Your task to perform on an android device: Open the Play Movies app and select the watchlist tab. Image 0: 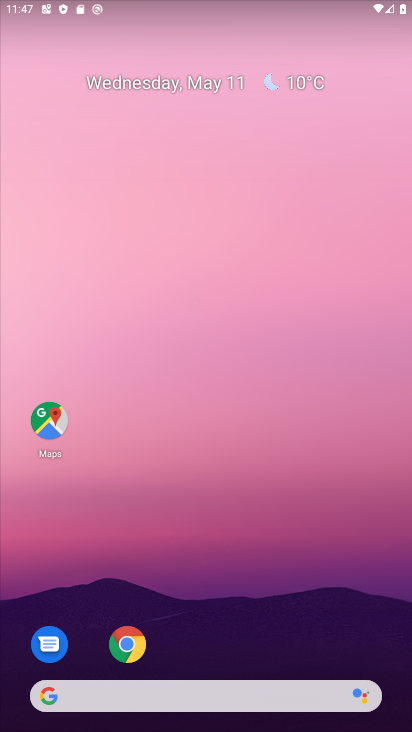
Step 0: drag from (264, 557) to (405, 663)
Your task to perform on an android device: Open the Play Movies app and select the watchlist tab. Image 1: 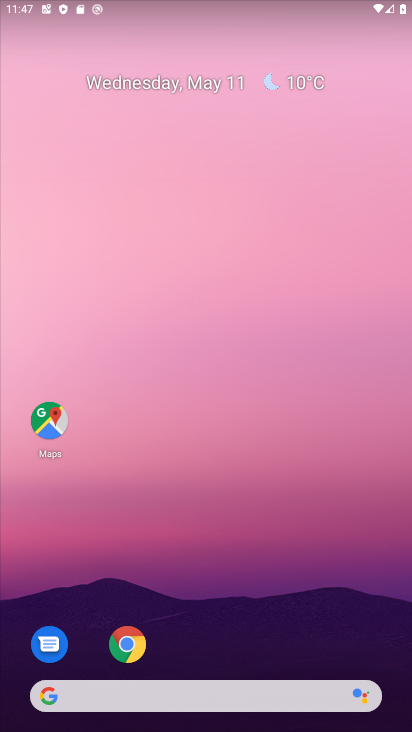
Step 1: drag from (326, 618) to (233, 26)
Your task to perform on an android device: Open the Play Movies app and select the watchlist tab. Image 2: 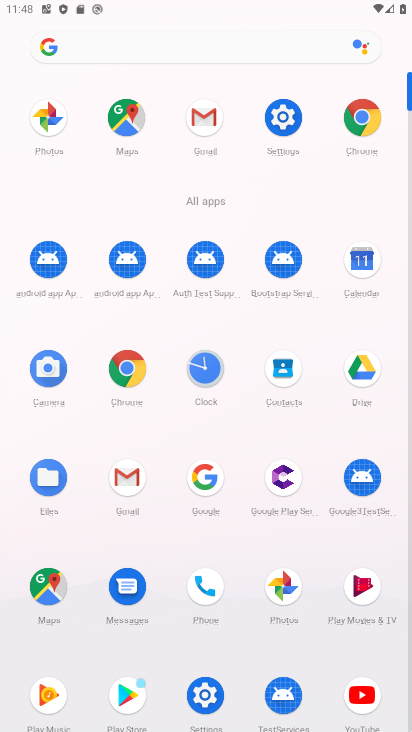
Step 2: click (376, 590)
Your task to perform on an android device: Open the Play Movies app and select the watchlist tab. Image 3: 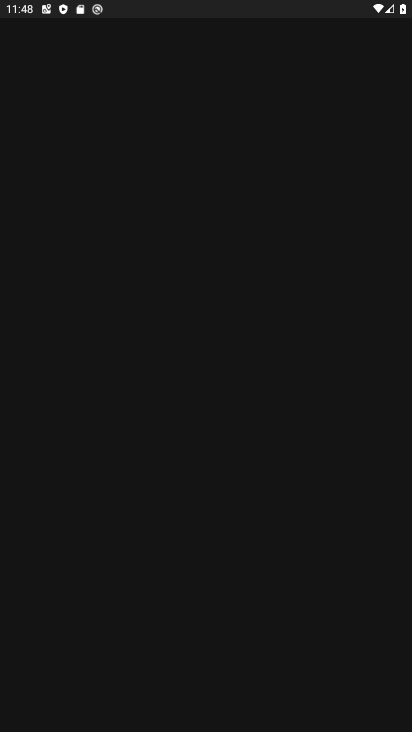
Step 3: click (374, 586)
Your task to perform on an android device: Open the Play Movies app and select the watchlist tab. Image 4: 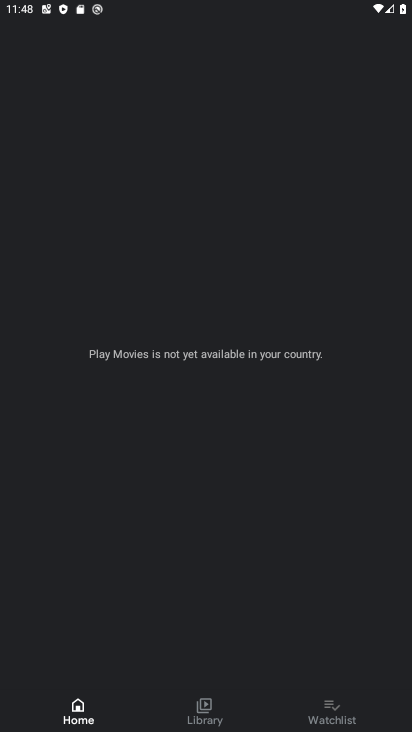
Step 4: click (323, 703)
Your task to perform on an android device: Open the Play Movies app and select the watchlist tab. Image 5: 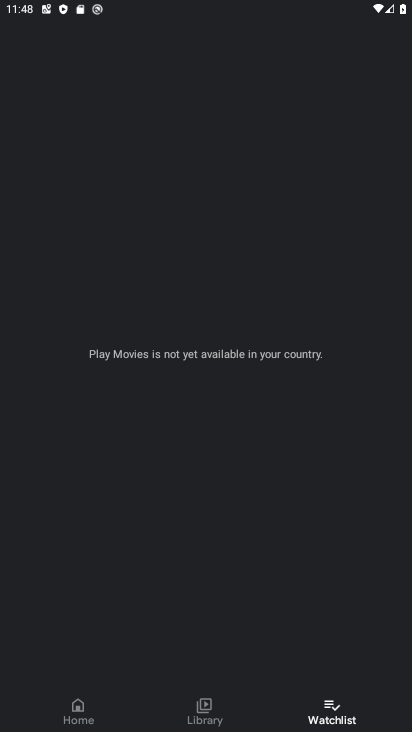
Step 5: task complete